Your task to perform on an android device: toggle wifi Image 0: 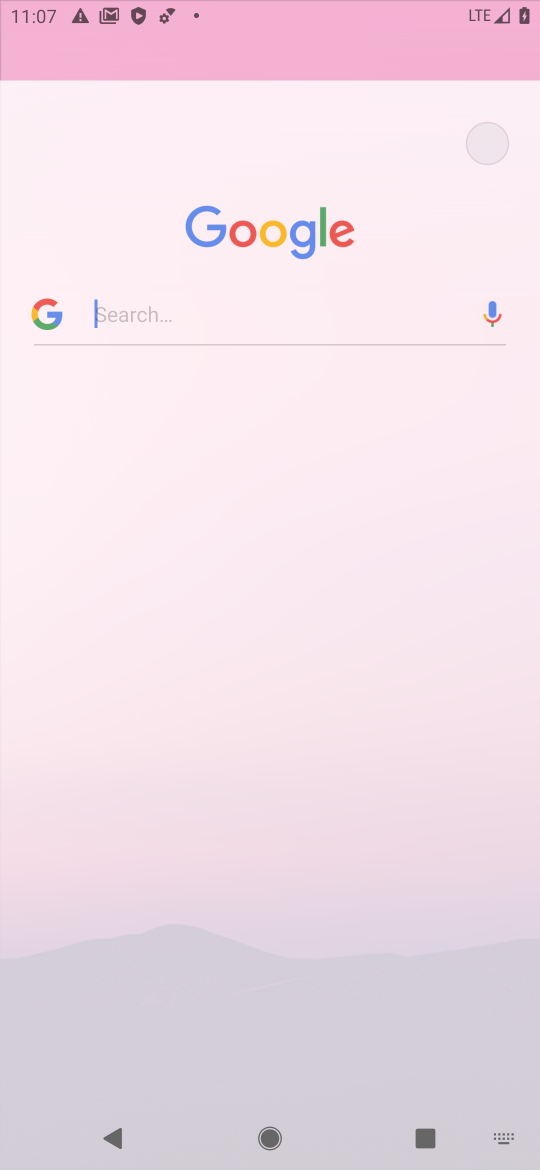
Step 0: drag from (263, 965) to (217, 97)
Your task to perform on an android device: toggle wifi Image 1: 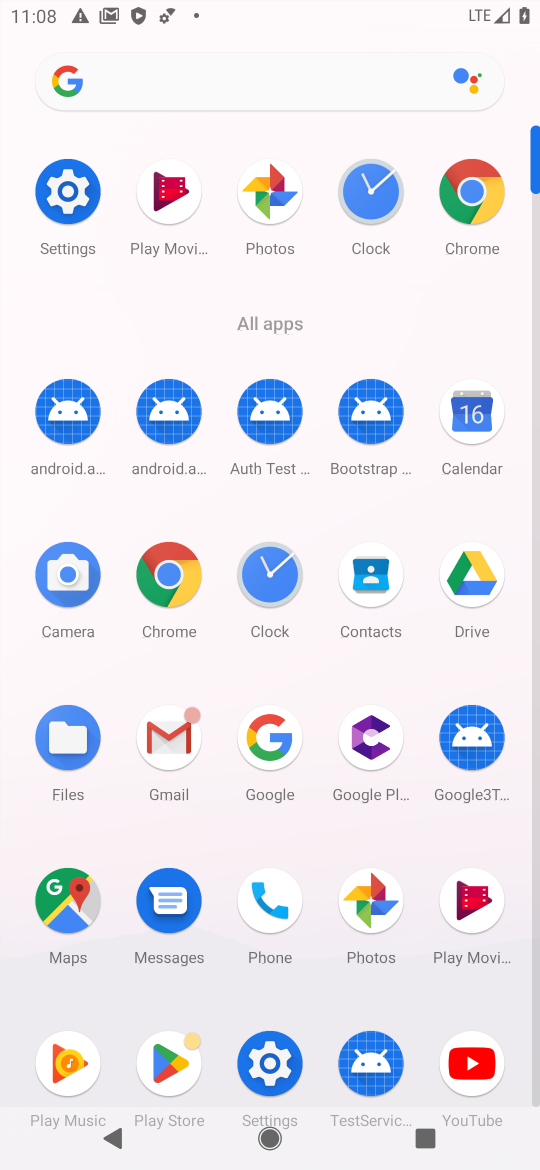
Step 1: drag from (268, 10) to (273, 625)
Your task to perform on an android device: toggle wifi Image 2: 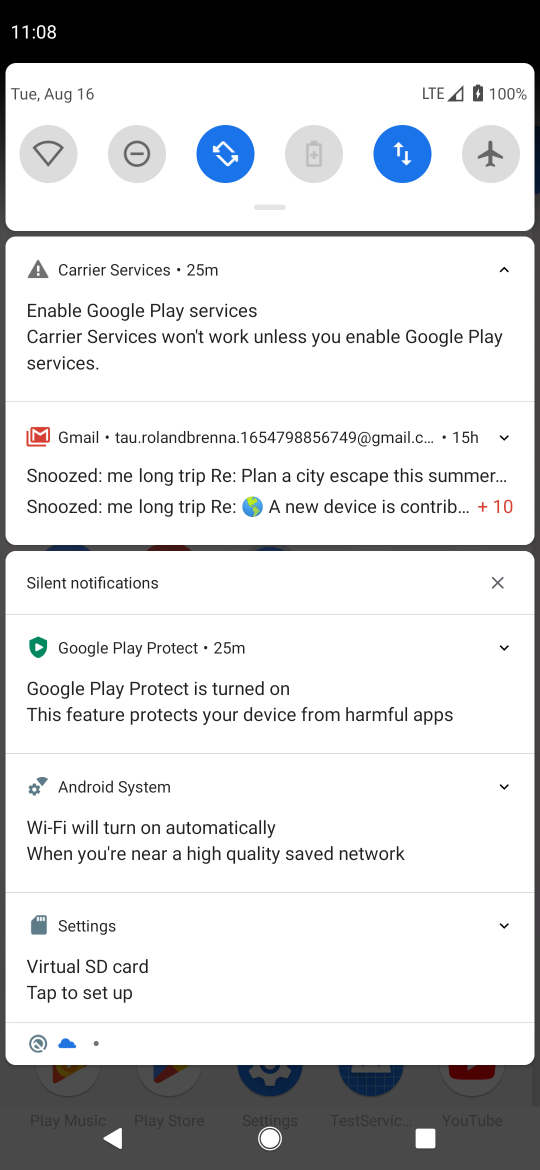
Step 2: click (56, 145)
Your task to perform on an android device: toggle wifi Image 3: 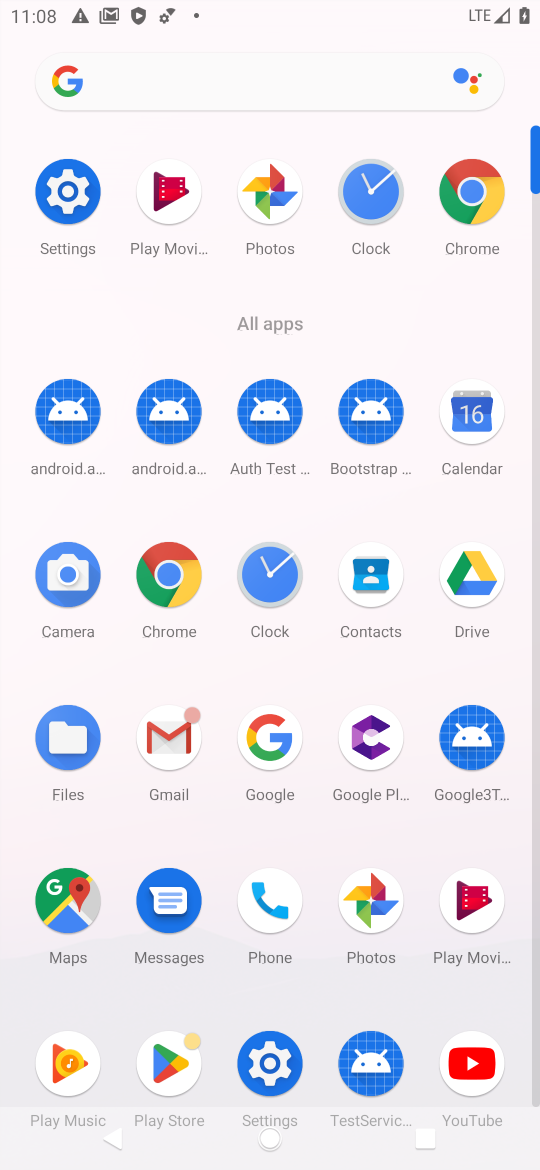
Step 3: click (56, 145)
Your task to perform on an android device: toggle wifi Image 4: 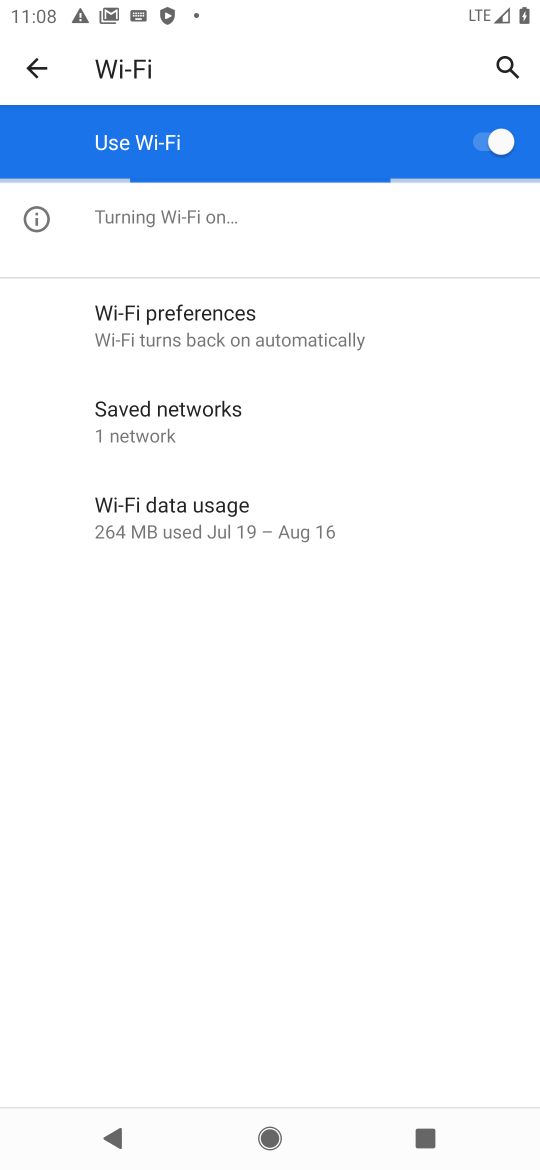
Step 4: click (490, 142)
Your task to perform on an android device: toggle wifi Image 5: 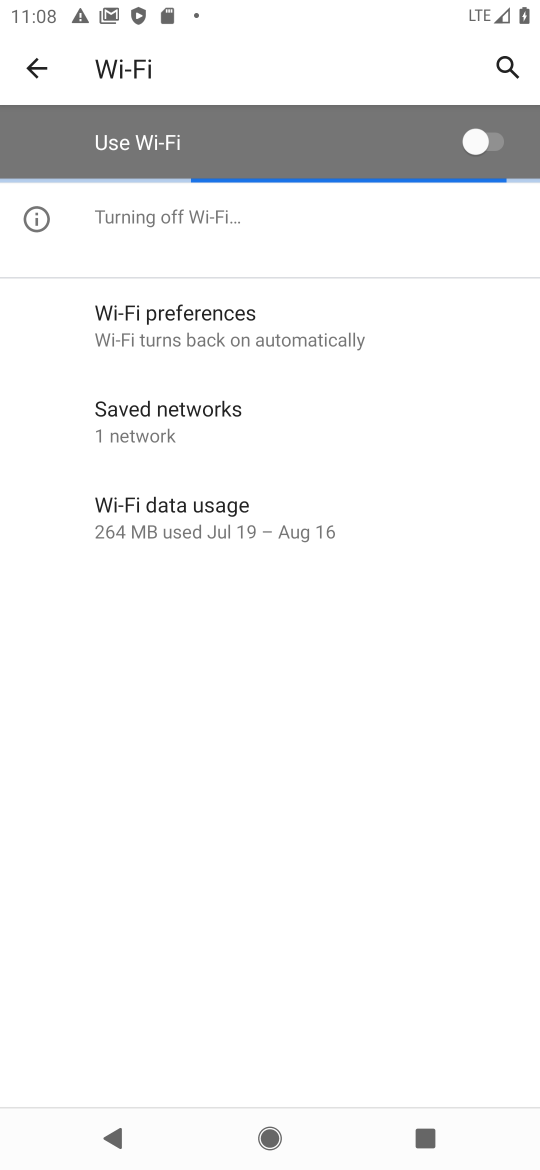
Step 5: click (490, 142)
Your task to perform on an android device: toggle wifi Image 6: 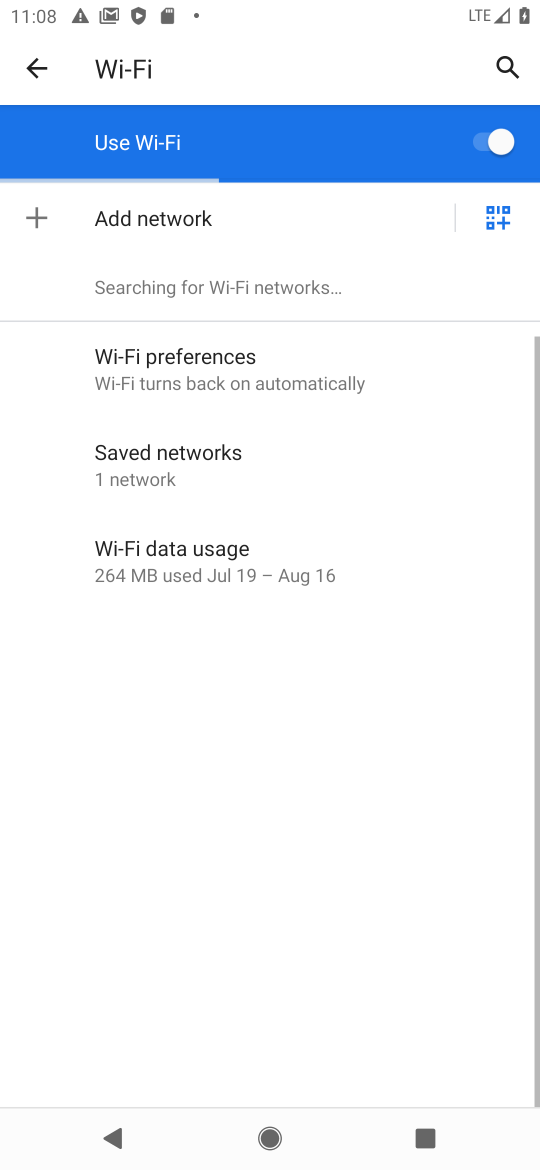
Step 6: task complete